Your task to perform on an android device: open app "Booking.com: Hotels and more" Image 0: 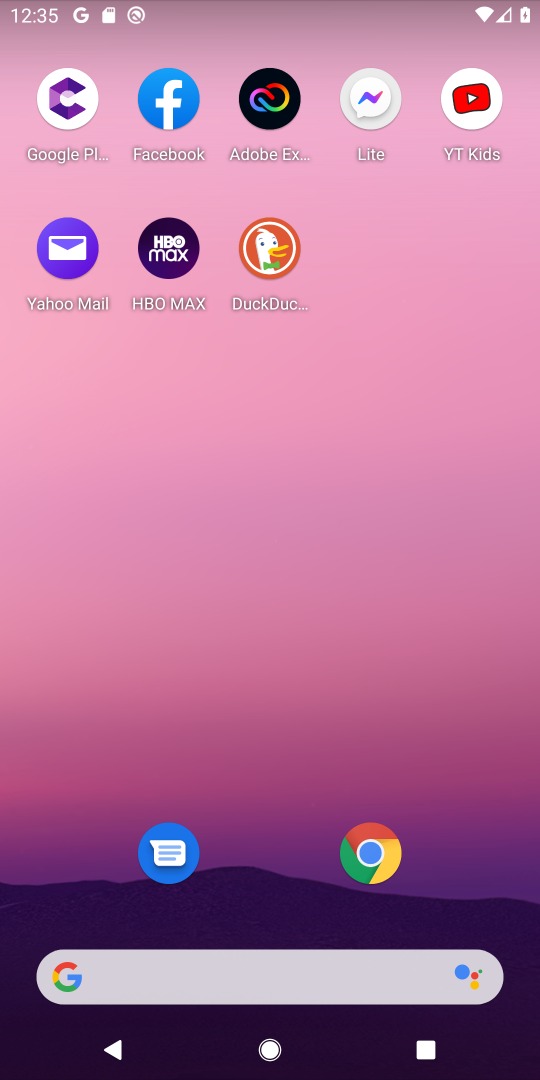
Step 0: drag from (443, 835) to (429, 111)
Your task to perform on an android device: open app "Booking.com: Hotels and more" Image 1: 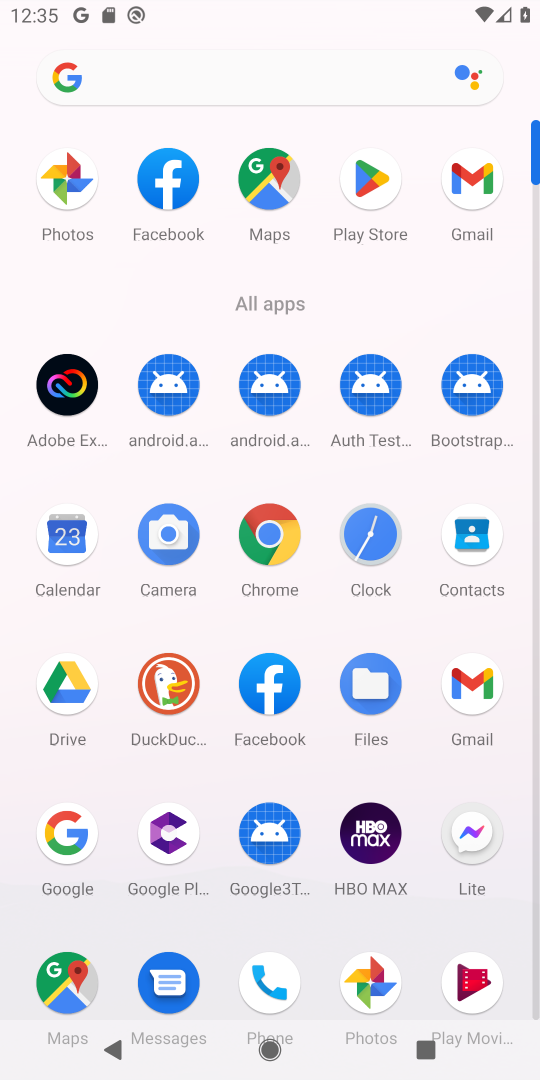
Step 1: drag from (214, 934) to (226, 513)
Your task to perform on an android device: open app "Booking.com: Hotels and more" Image 2: 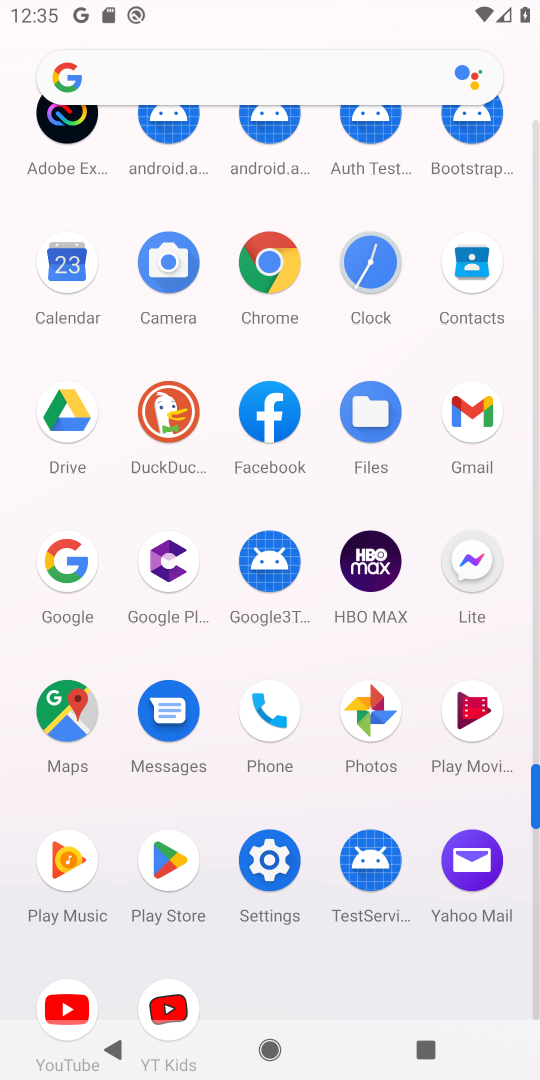
Step 2: click (175, 865)
Your task to perform on an android device: open app "Booking.com: Hotels and more" Image 3: 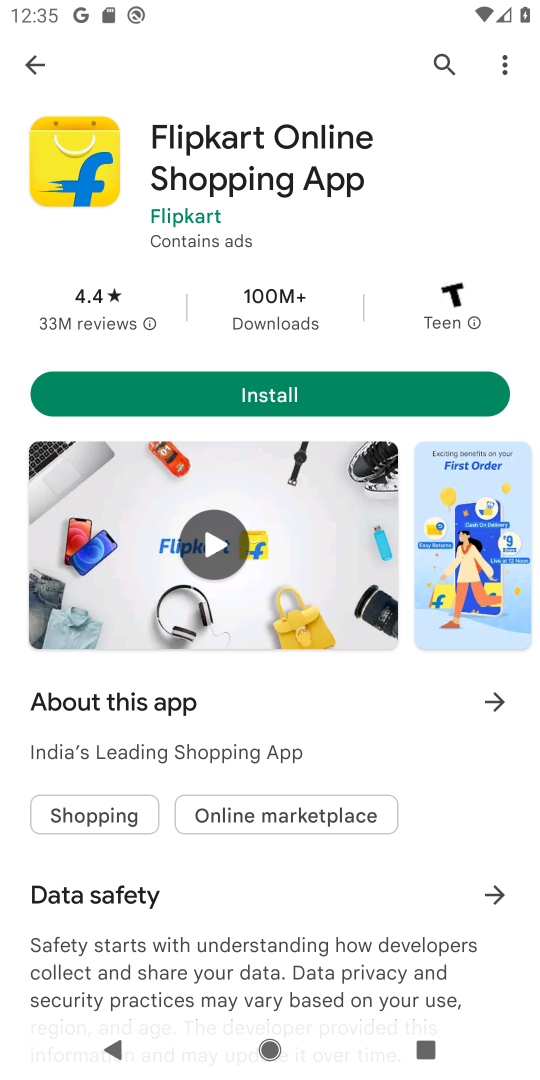
Step 3: click (438, 63)
Your task to perform on an android device: open app "Booking.com: Hotels and more" Image 4: 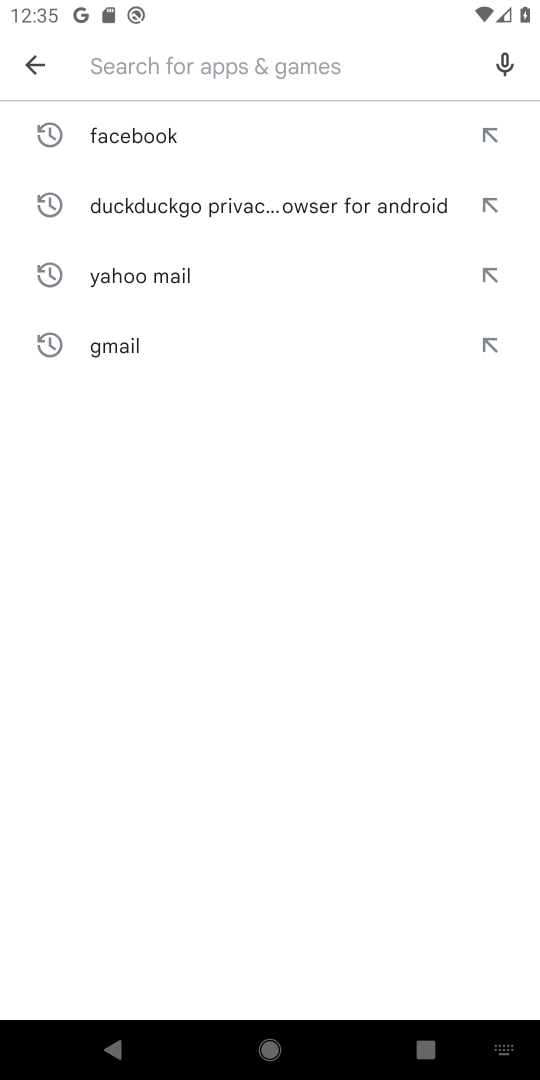
Step 4: type "Booking.com: Hotels and more"
Your task to perform on an android device: open app "Booking.com: Hotels and more" Image 5: 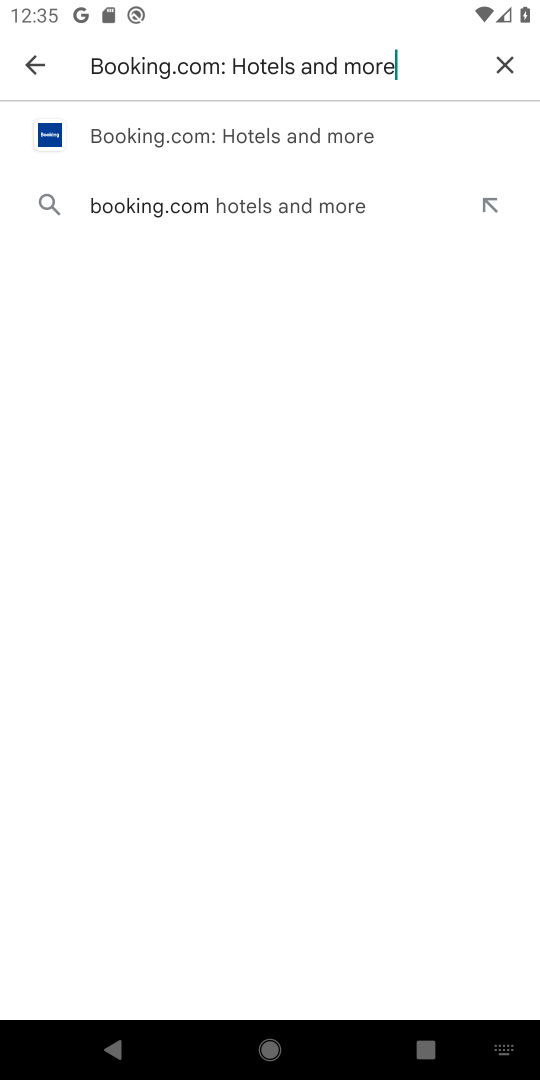
Step 5: click (181, 133)
Your task to perform on an android device: open app "Booking.com: Hotels and more" Image 6: 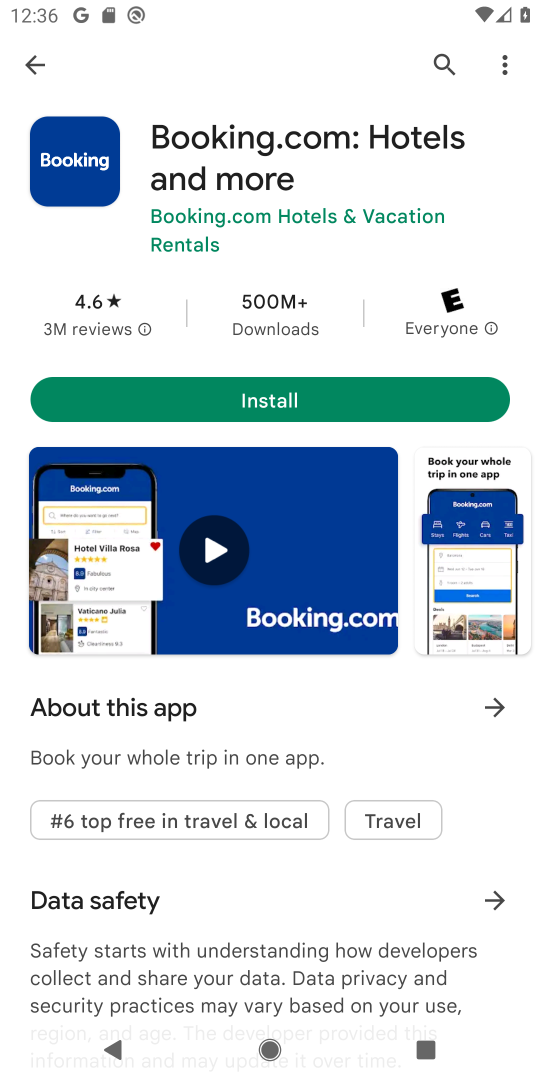
Step 6: task complete